Your task to perform on an android device: Open Yahoo.com Image 0: 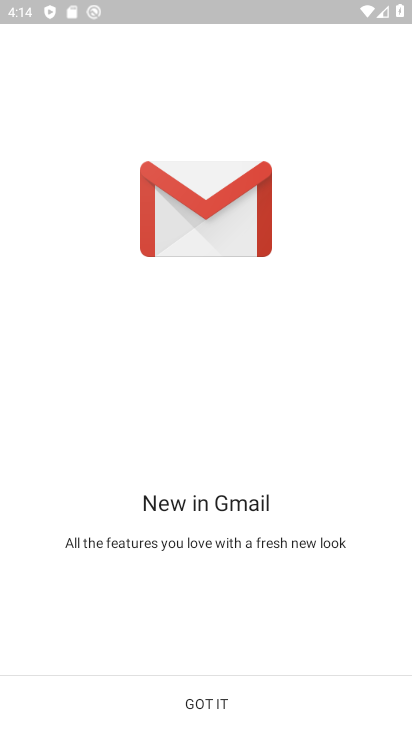
Step 0: click (249, 707)
Your task to perform on an android device: Open Yahoo.com Image 1: 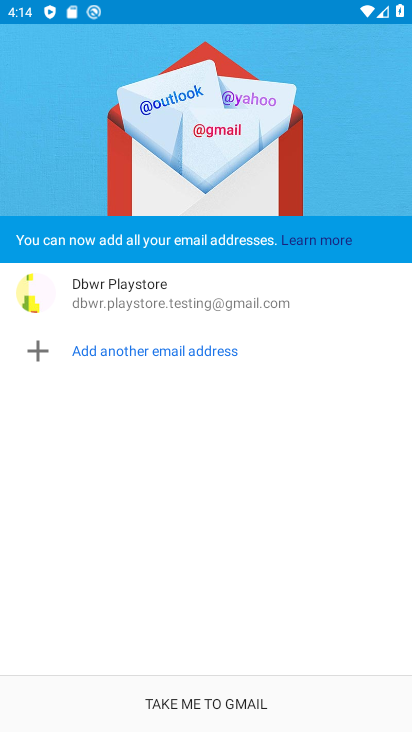
Step 1: press home button
Your task to perform on an android device: Open Yahoo.com Image 2: 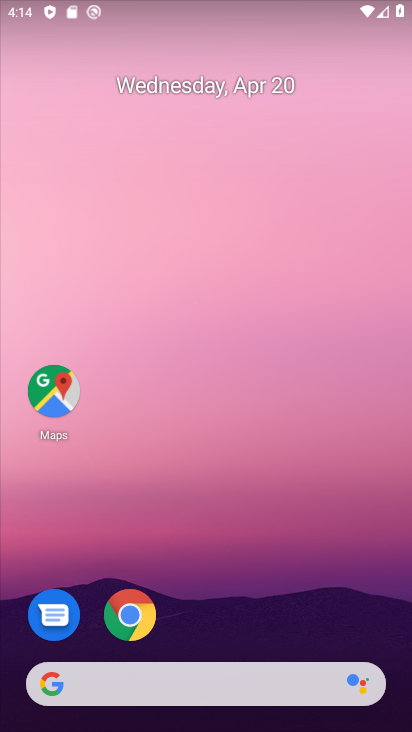
Step 2: click (112, 618)
Your task to perform on an android device: Open Yahoo.com Image 3: 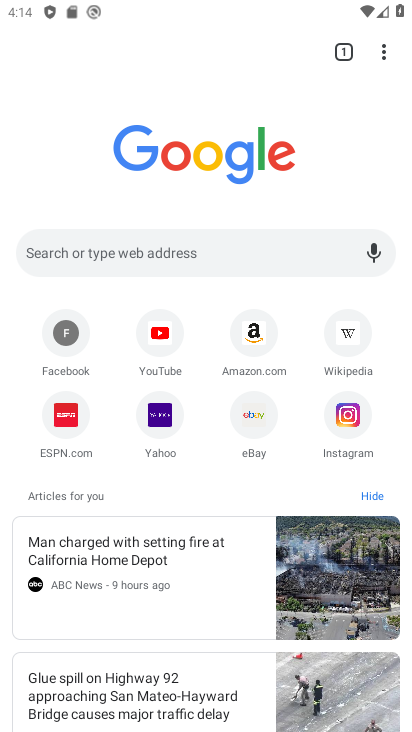
Step 3: click (169, 423)
Your task to perform on an android device: Open Yahoo.com Image 4: 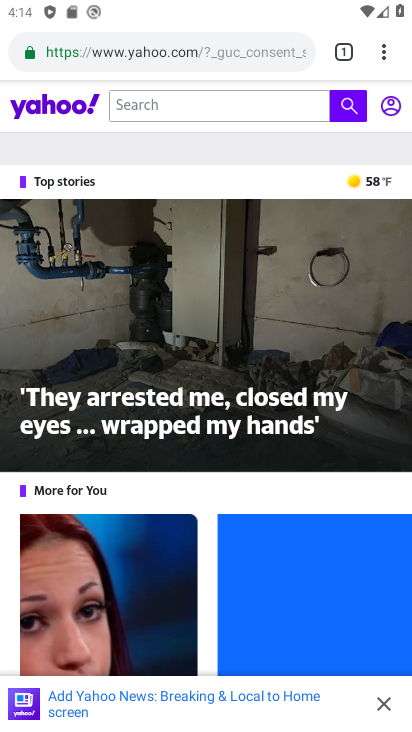
Step 4: task complete